Your task to perform on an android device: uninstall "Adobe Acrobat Reader: Edit PDF" Image 0: 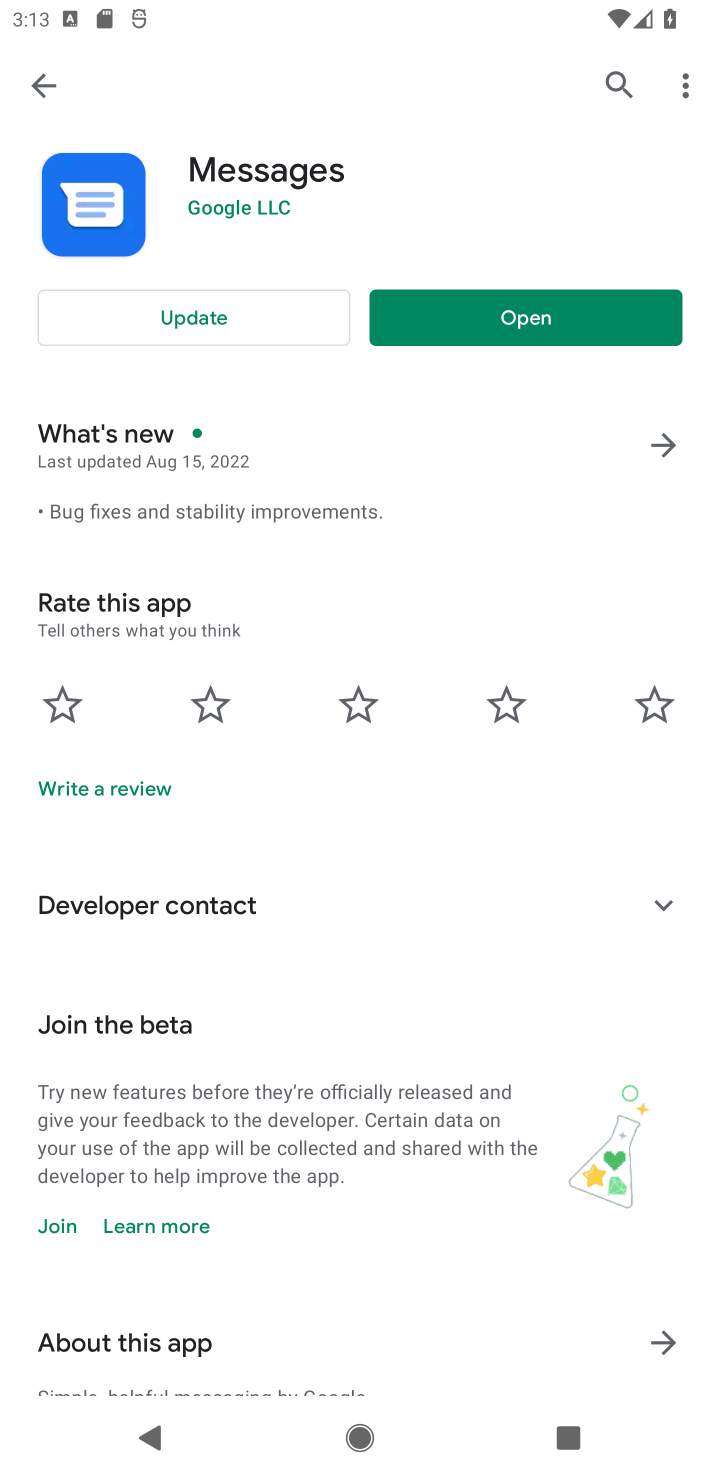
Step 0: click (54, 98)
Your task to perform on an android device: uninstall "Adobe Acrobat Reader: Edit PDF" Image 1: 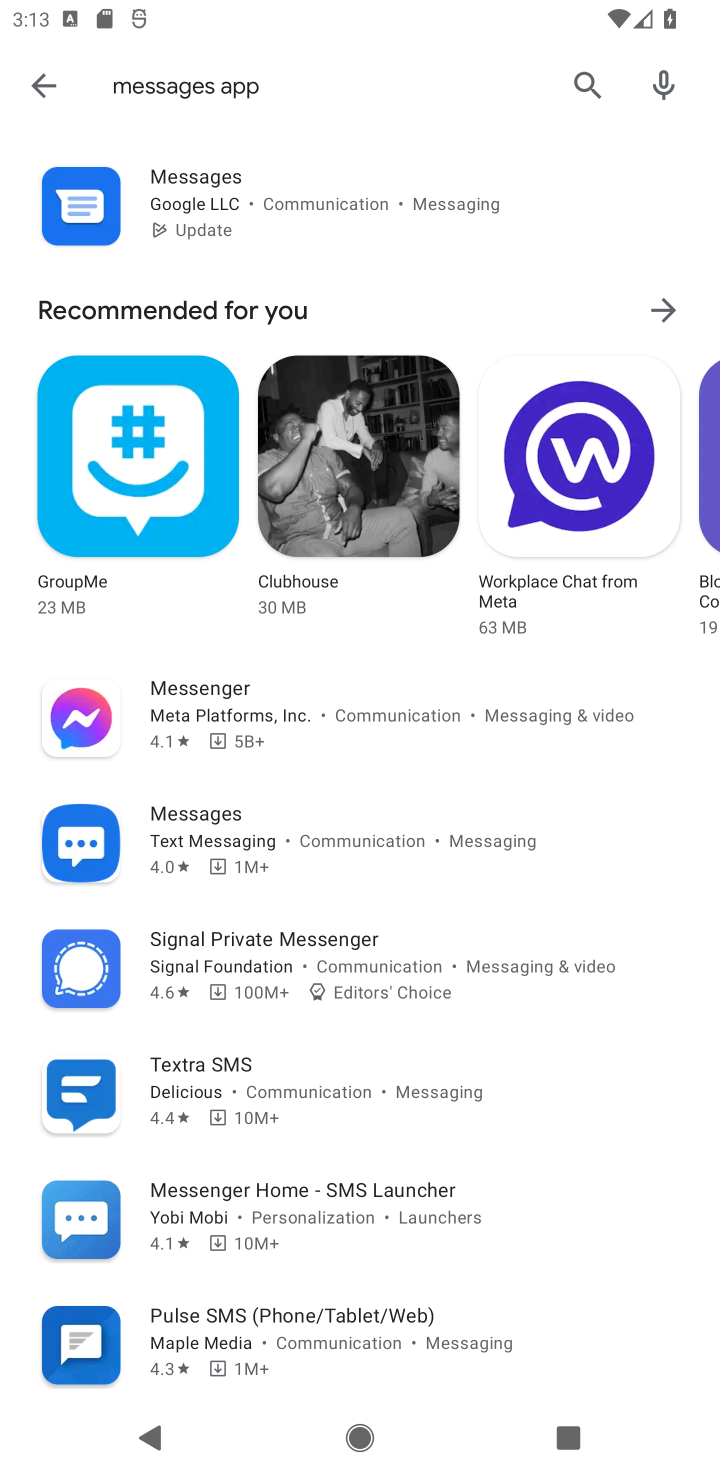
Step 1: click (54, 98)
Your task to perform on an android device: uninstall "Adobe Acrobat Reader: Edit PDF" Image 2: 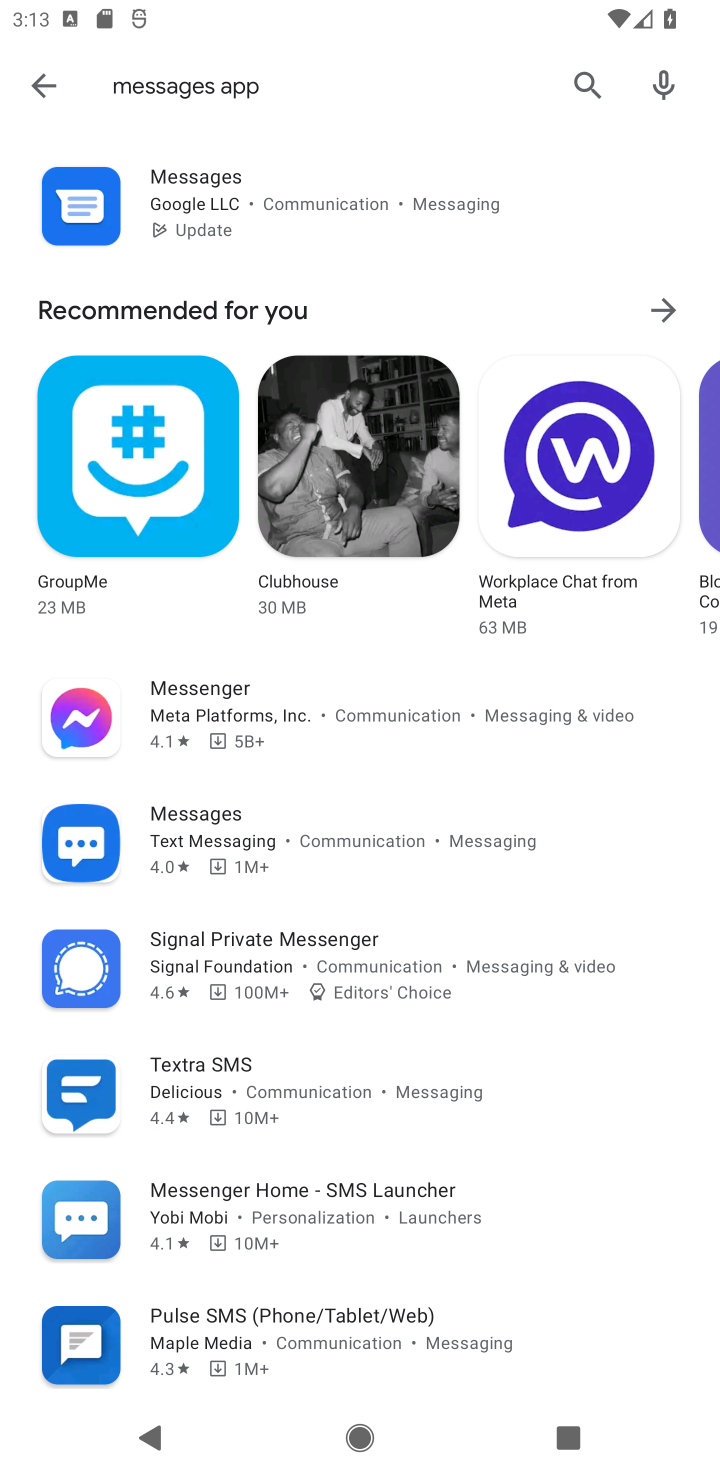
Step 2: click (590, 70)
Your task to perform on an android device: uninstall "Adobe Acrobat Reader: Edit PDF" Image 3: 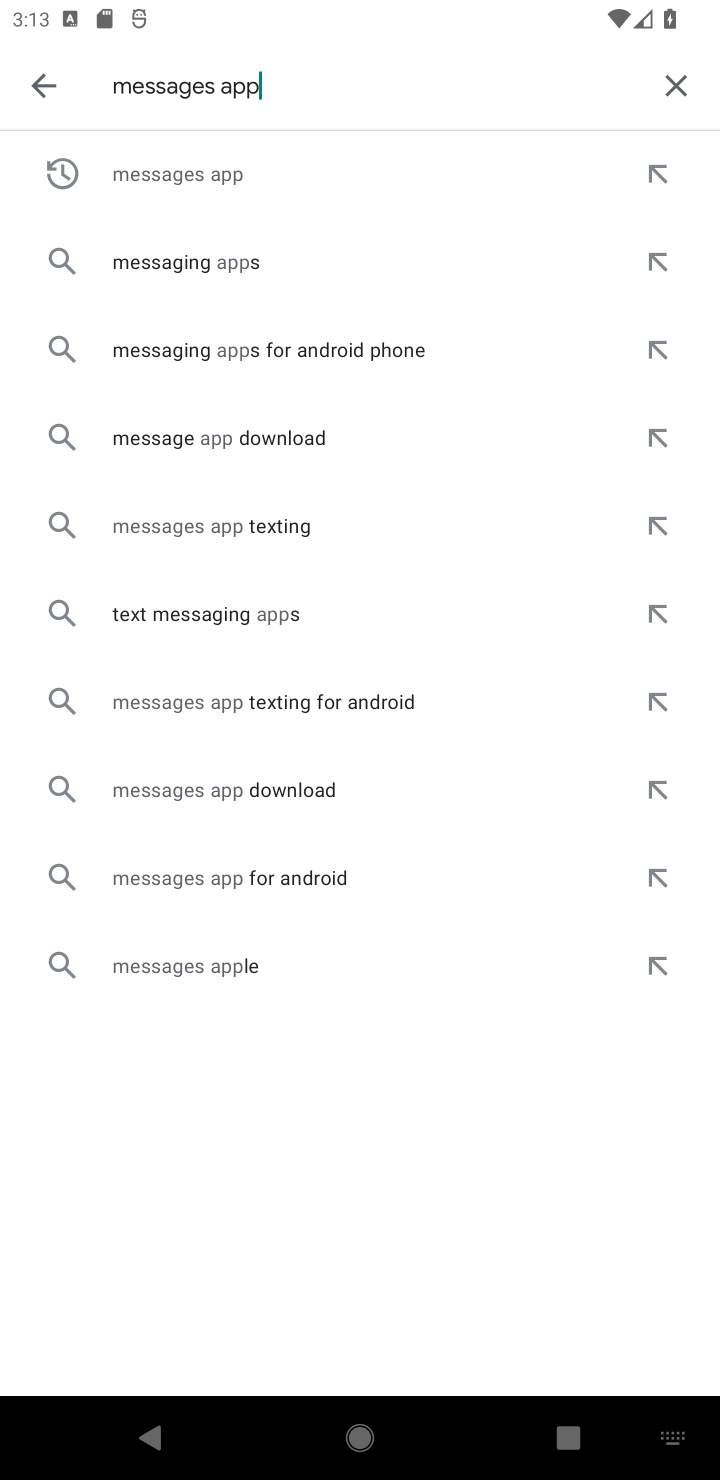
Step 3: click (665, 68)
Your task to perform on an android device: uninstall "Adobe Acrobat Reader: Edit PDF" Image 4: 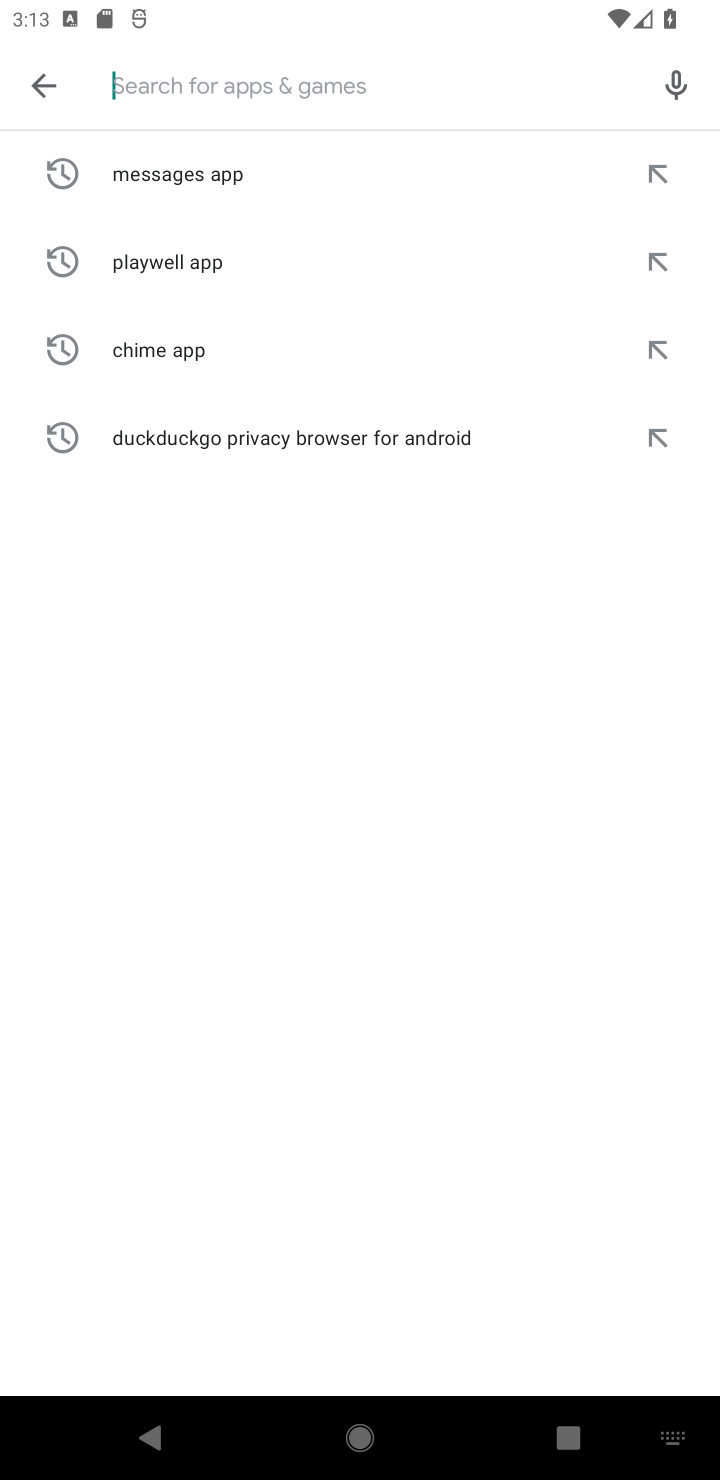
Step 4: click (236, 78)
Your task to perform on an android device: uninstall "Adobe Acrobat Reader: Edit PDF" Image 5: 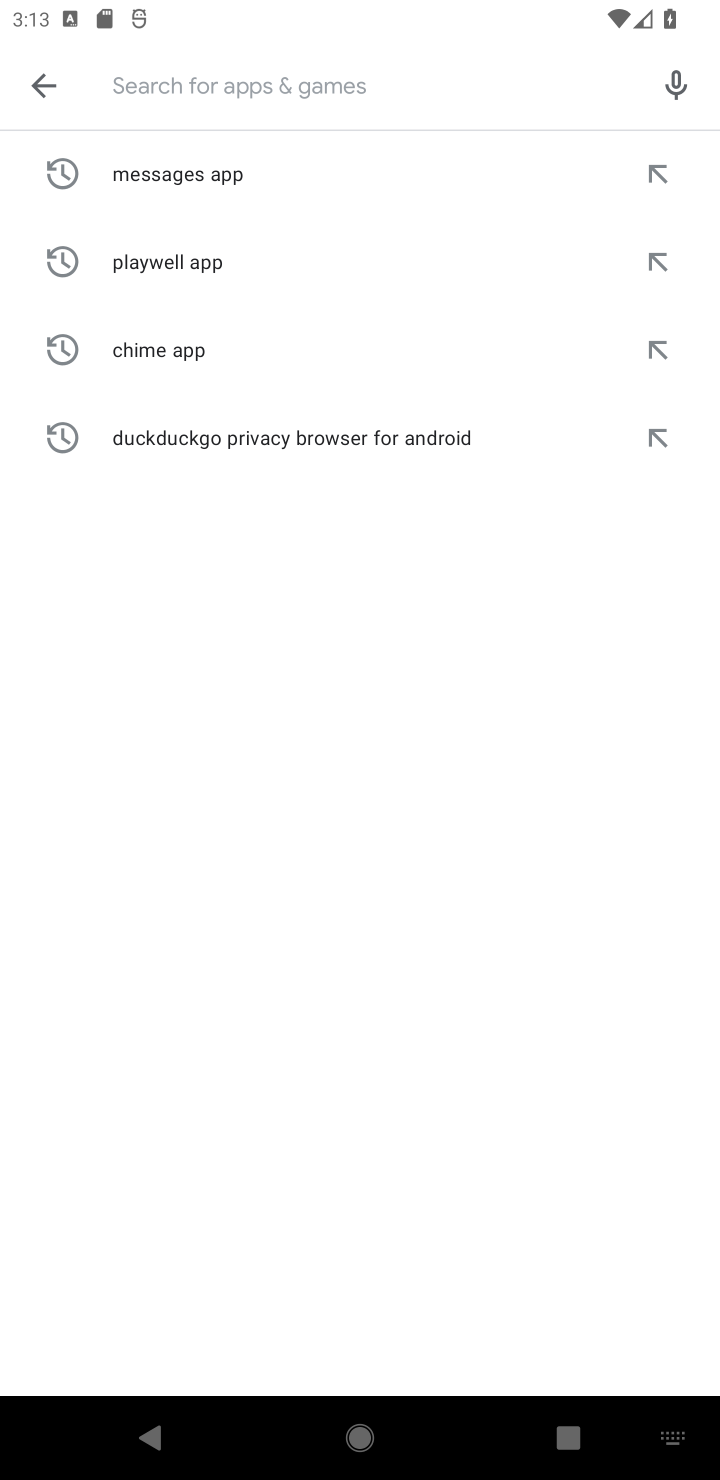
Step 5: type "Adobe Acrobat Reader: Edit PDF "
Your task to perform on an android device: uninstall "Adobe Acrobat Reader: Edit PDF" Image 6: 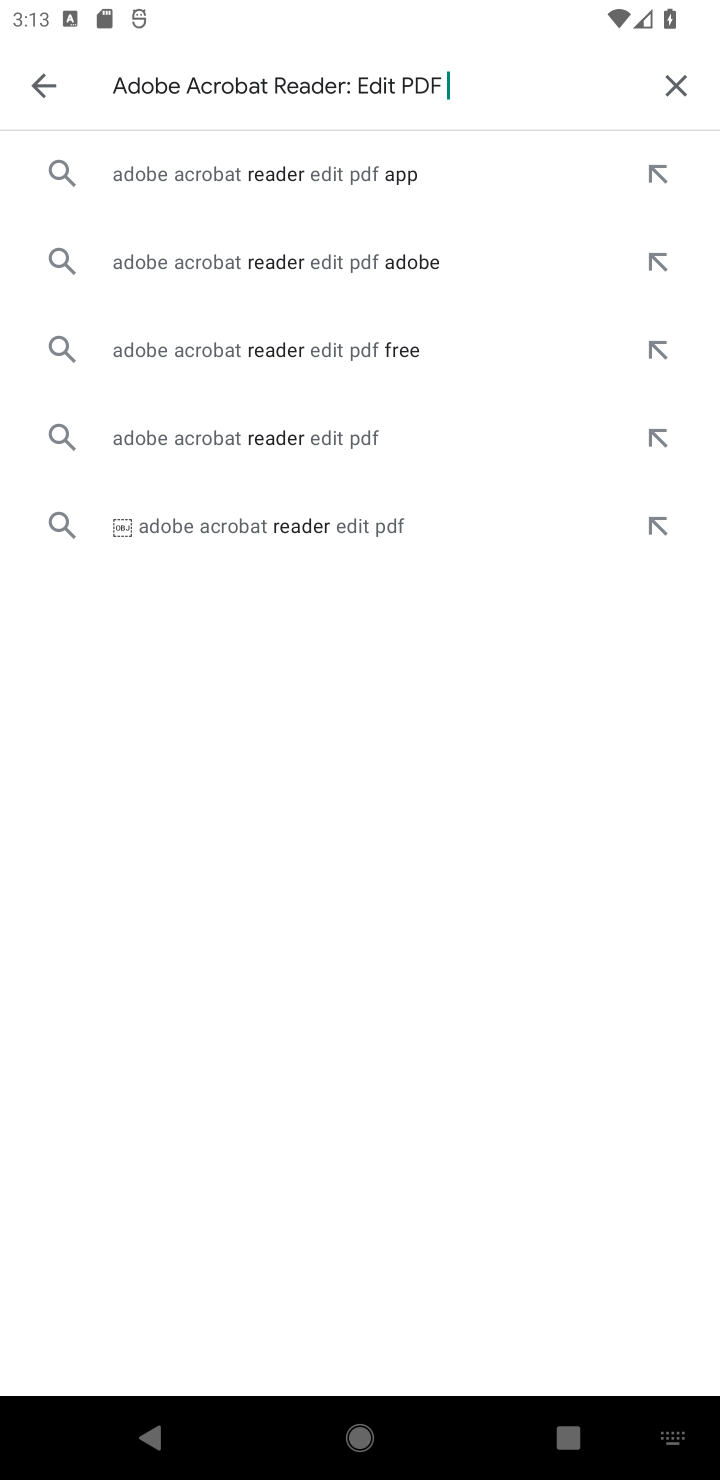
Step 6: click (254, 160)
Your task to perform on an android device: uninstall "Adobe Acrobat Reader: Edit PDF" Image 7: 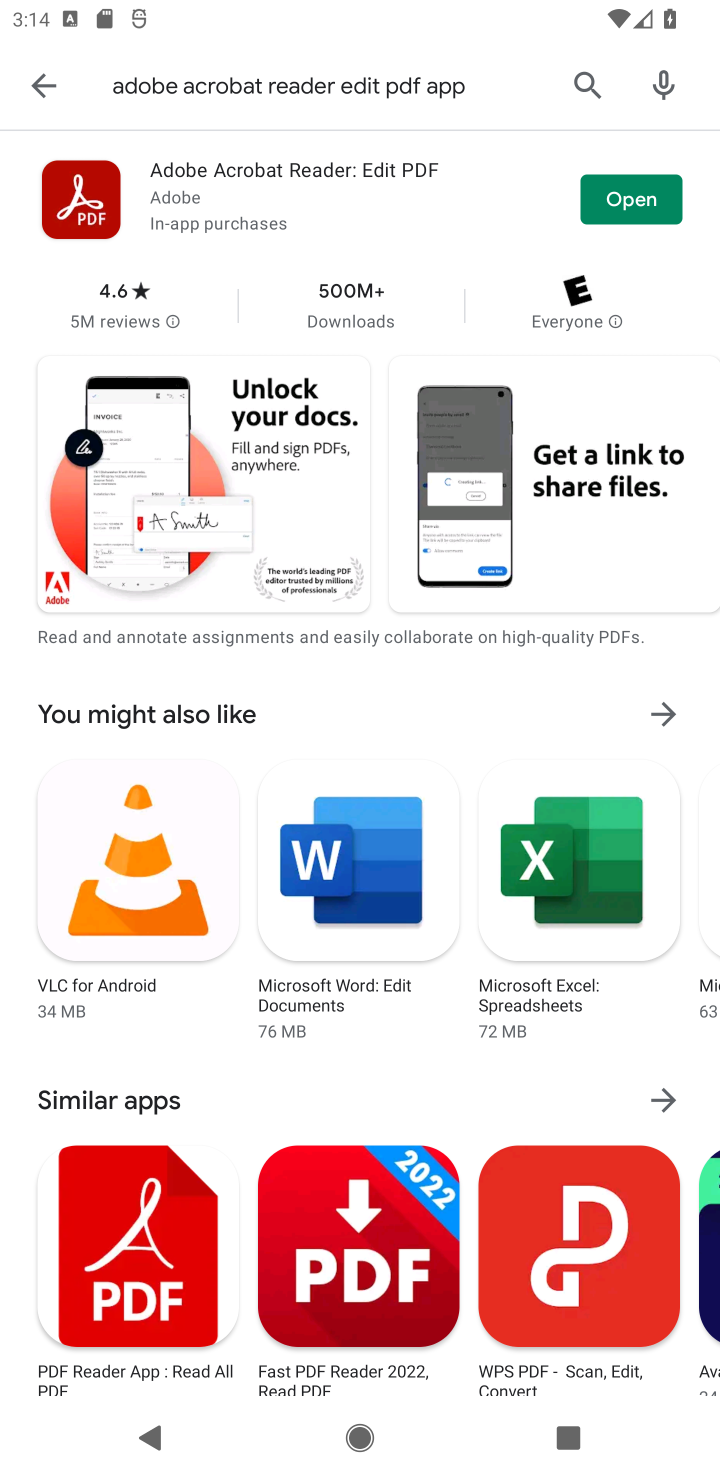
Step 7: click (612, 200)
Your task to perform on an android device: uninstall "Adobe Acrobat Reader: Edit PDF" Image 8: 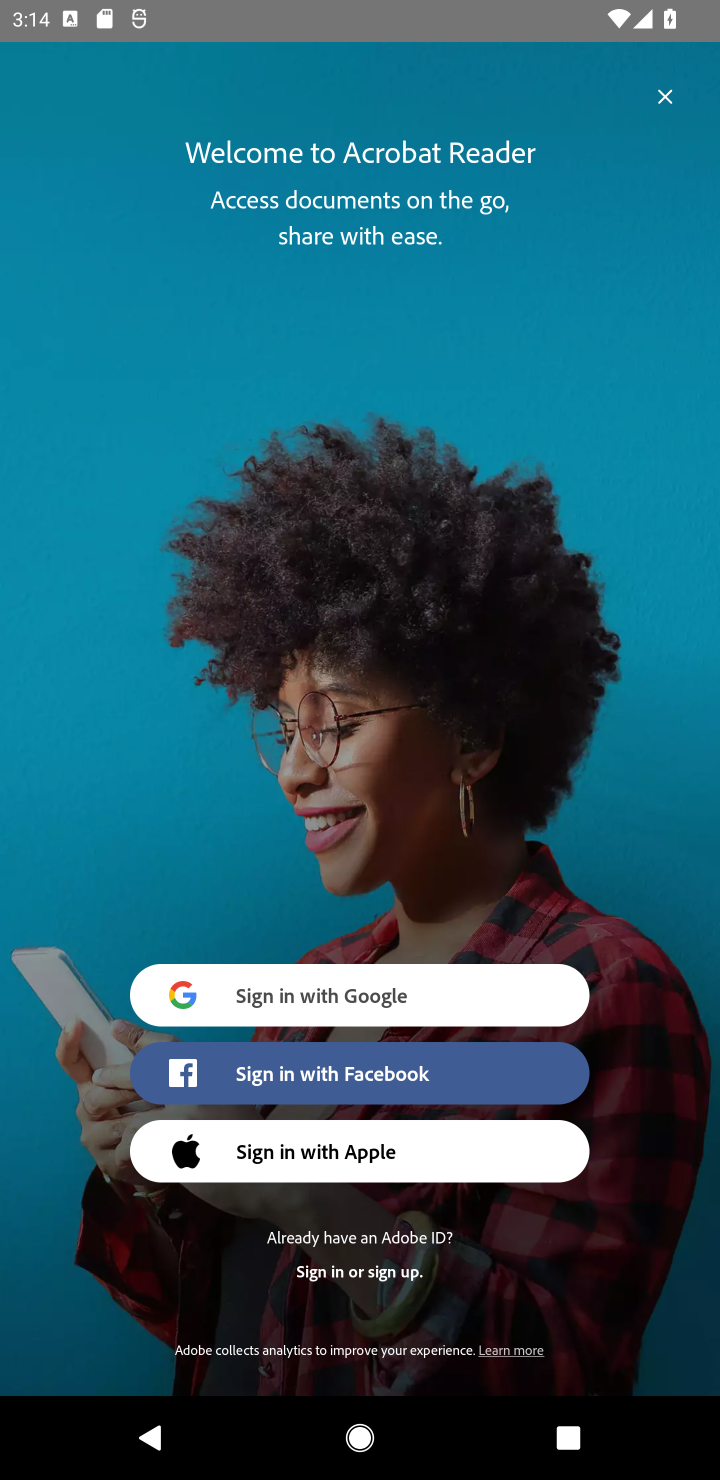
Step 8: press back button
Your task to perform on an android device: uninstall "Adobe Acrobat Reader: Edit PDF" Image 9: 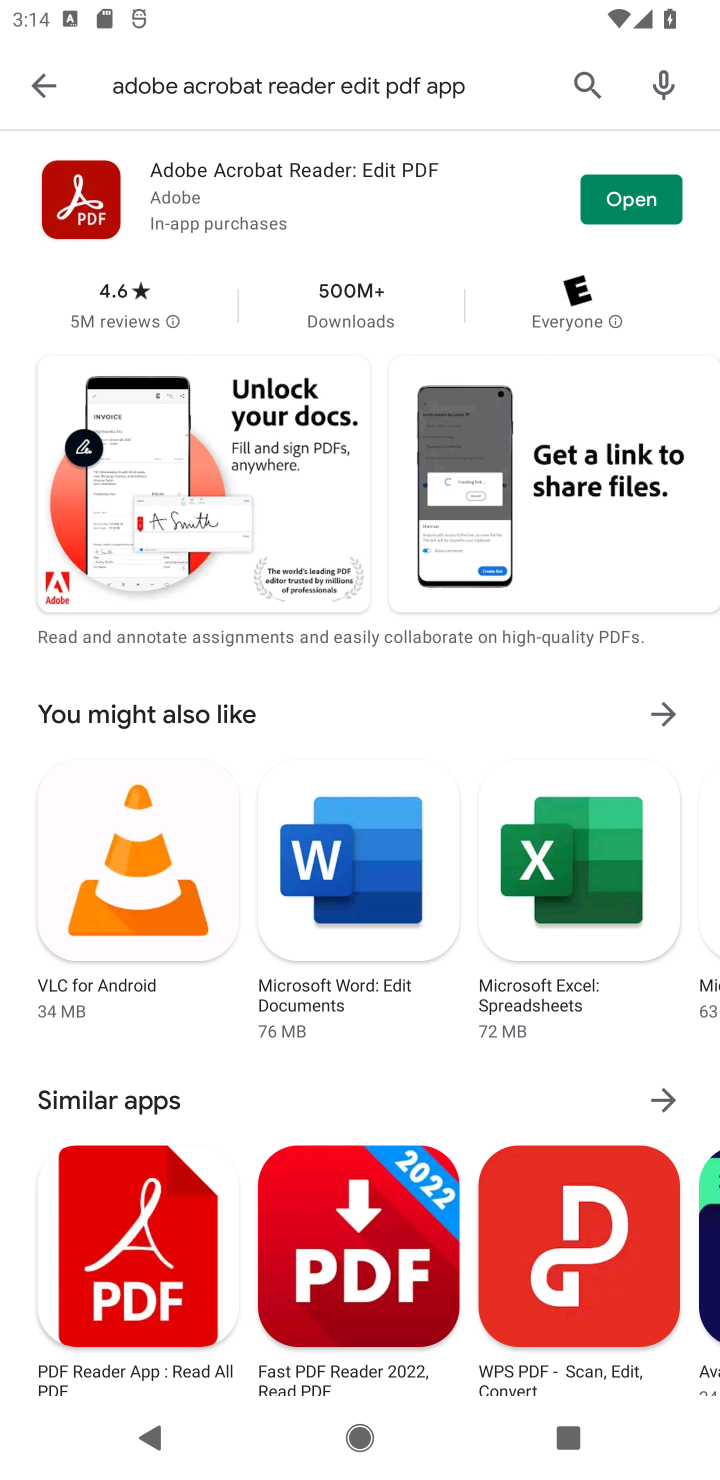
Step 9: click (197, 202)
Your task to perform on an android device: uninstall "Adobe Acrobat Reader: Edit PDF" Image 10: 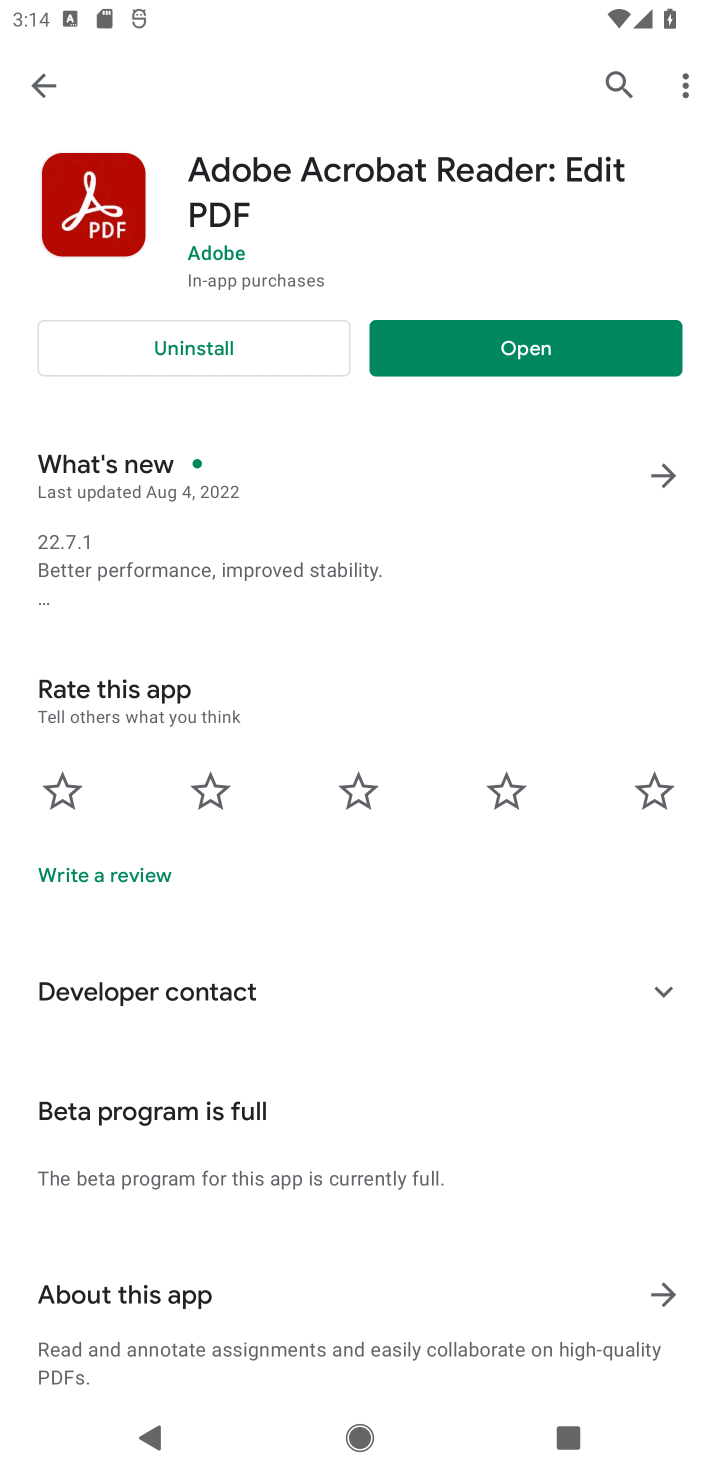
Step 10: click (201, 343)
Your task to perform on an android device: uninstall "Adobe Acrobat Reader: Edit PDF" Image 11: 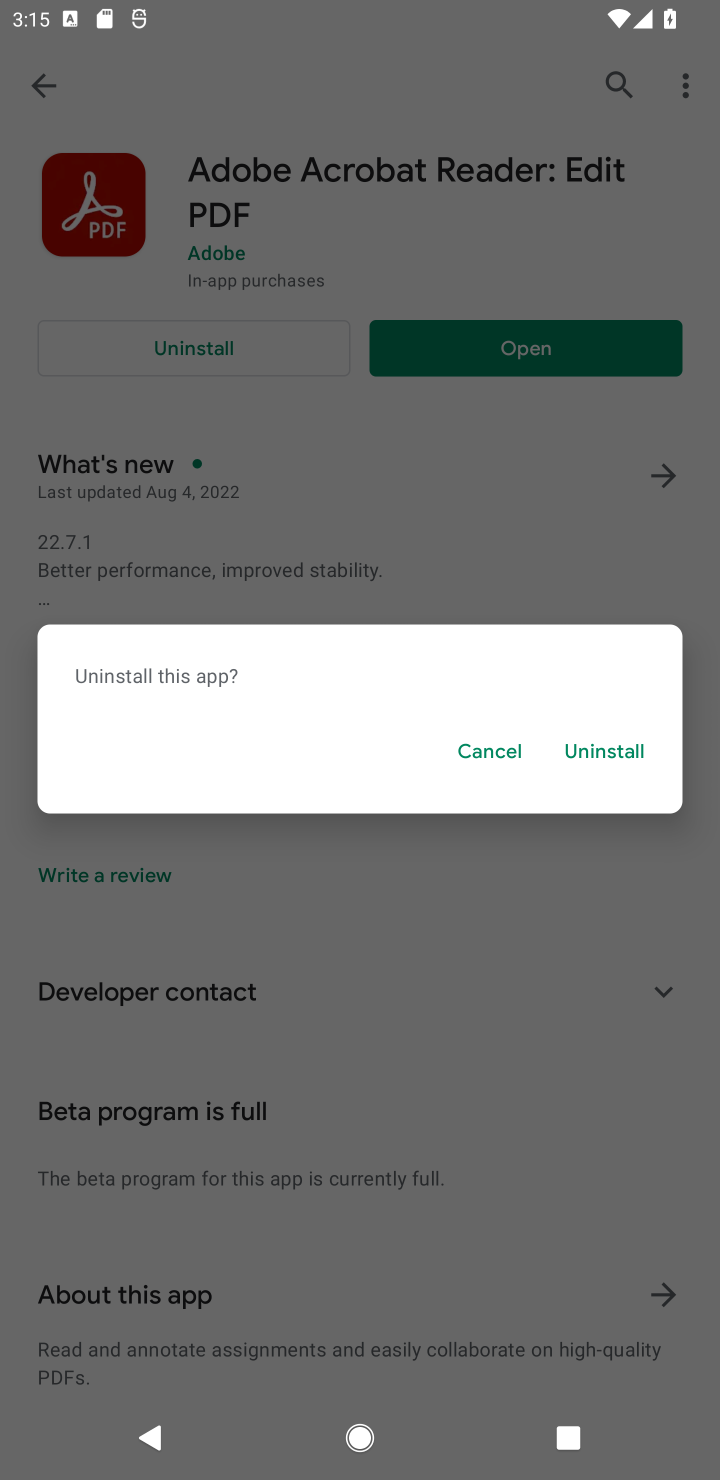
Step 11: click (597, 746)
Your task to perform on an android device: uninstall "Adobe Acrobat Reader: Edit PDF" Image 12: 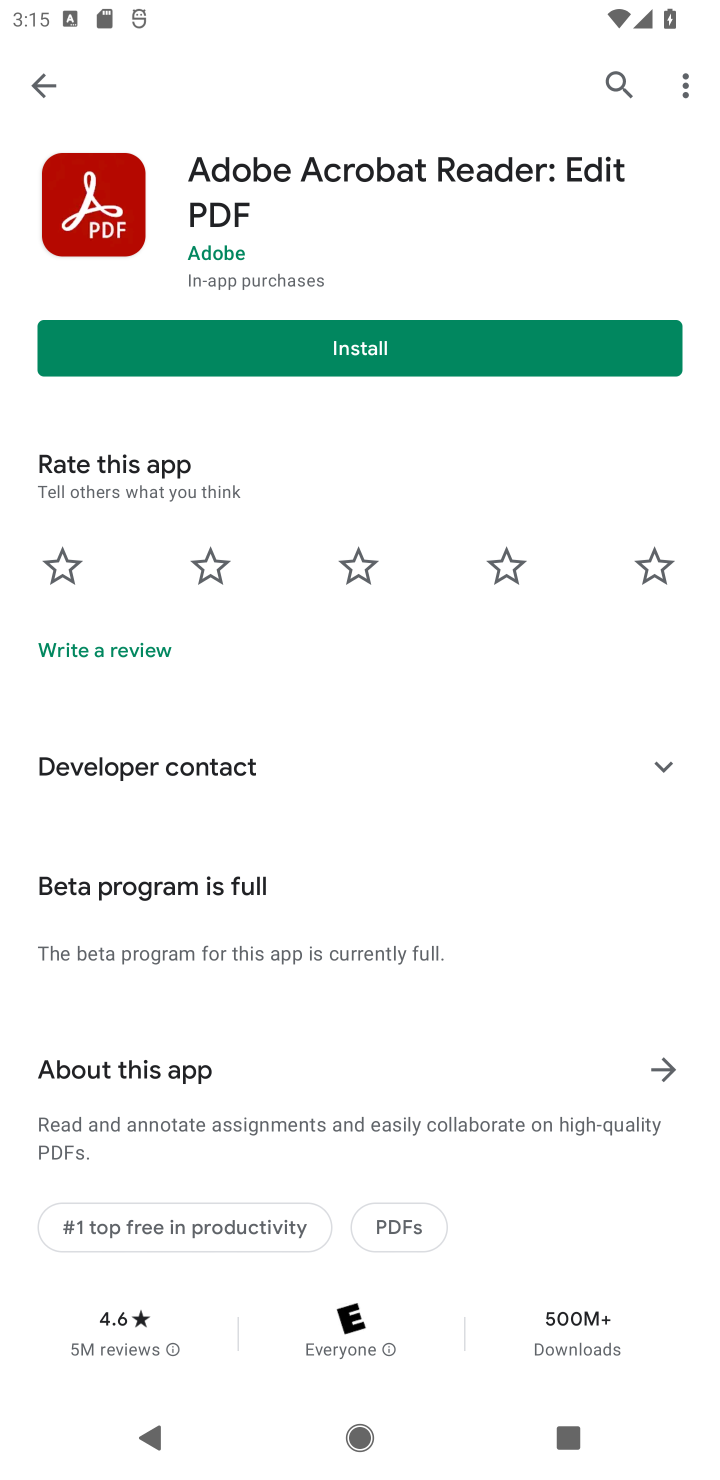
Step 12: task complete